Your task to perform on an android device: Open Google Maps and go to "Timeline" Image 0: 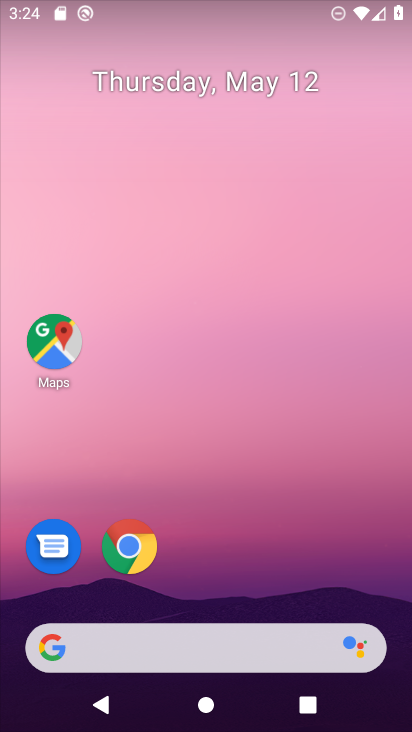
Step 0: drag from (206, 599) to (226, 248)
Your task to perform on an android device: Open Google Maps and go to "Timeline" Image 1: 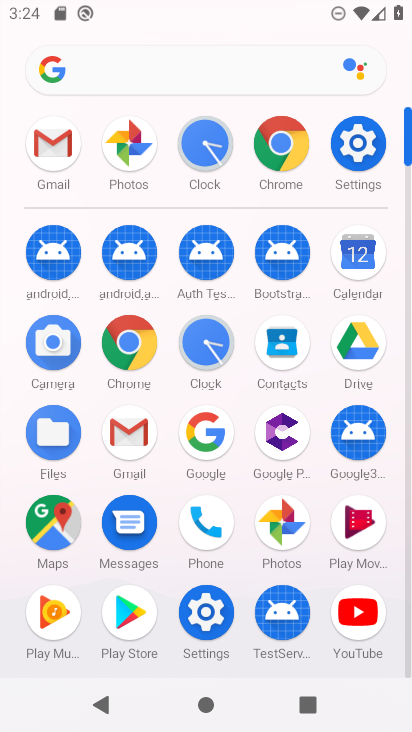
Step 1: click (46, 534)
Your task to perform on an android device: Open Google Maps and go to "Timeline" Image 2: 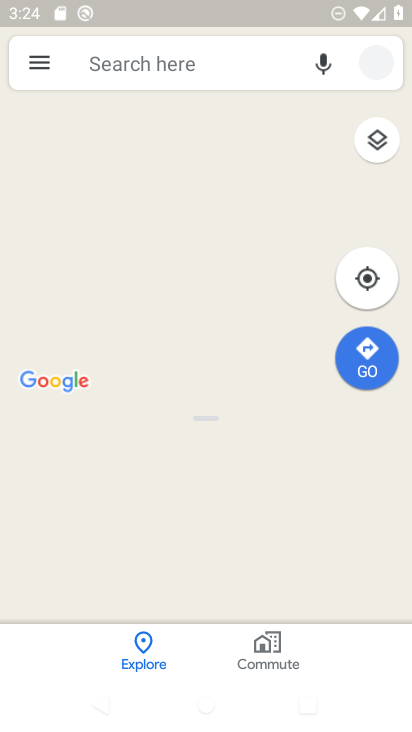
Step 2: click (28, 63)
Your task to perform on an android device: Open Google Maps and go to "Timeline" Image 3: 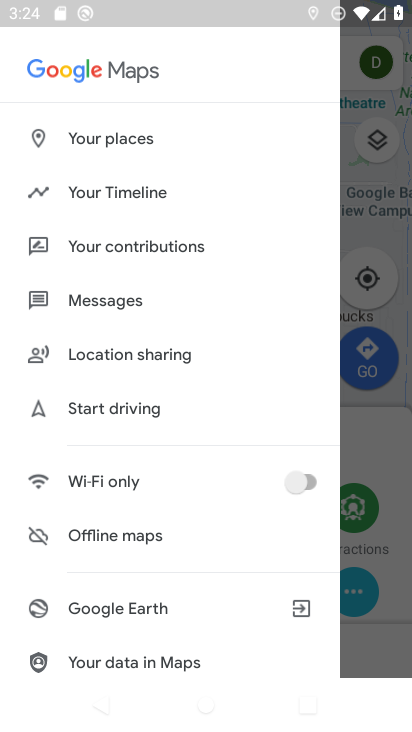
Step 3: click (125, 189)
Your task to perform on an android device: Open Google Maps and go to "Timeline" Image 4: 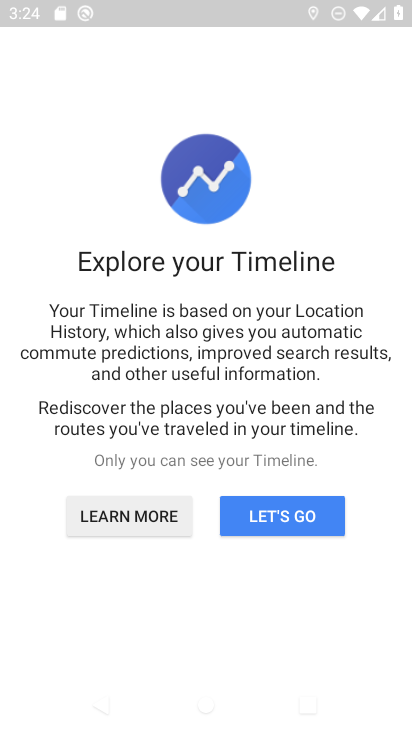
Step 4: click (265, 513)
Your task to perform on an android device: Open Google Maps and go to "Timeline" Image 5: 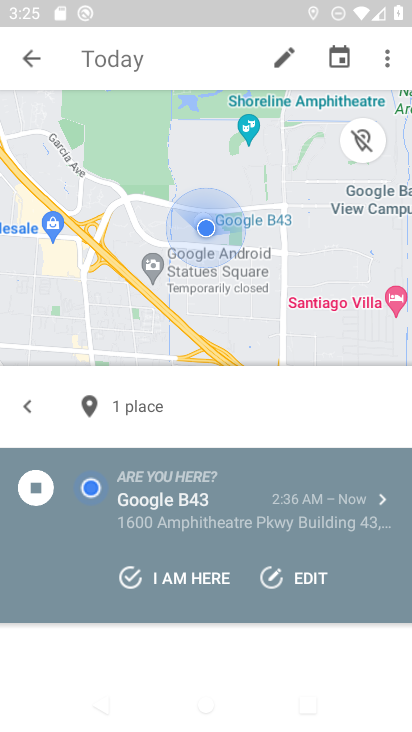
Step 5: task complete